Your task to perform on an android device: open app "Nova Launcher" (install if not already installed) Image 0: 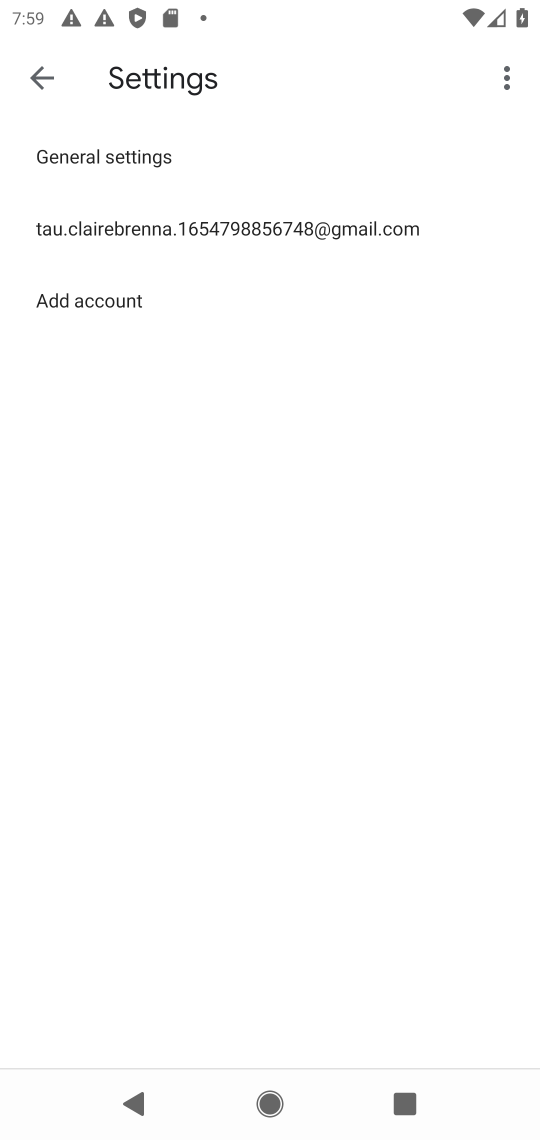
Step 0: press home button
Your task to perform on an android device: open app "Nova Launcher" (install if not already installed) Image 1: 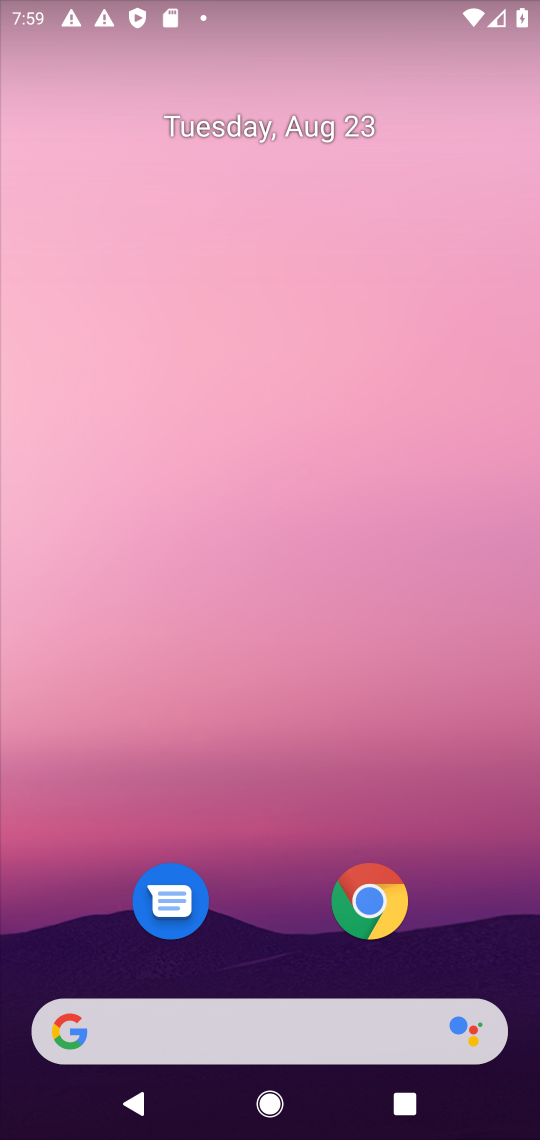
Step 1: drag from (253, 873) to (93, 164)
Your task to perform on an android device: open app "Nova Launcher" (install if not already installed) Image 2: 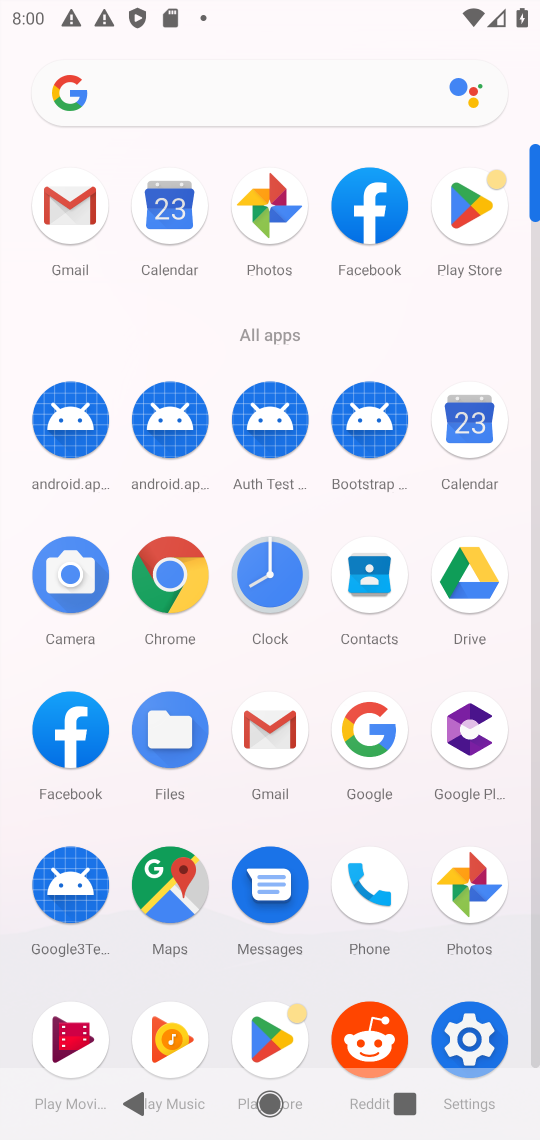
Step 2: click (491, 213)
Your task to perform on an android device: open app "Nova Launcher" (install if not already installed) Image 3: 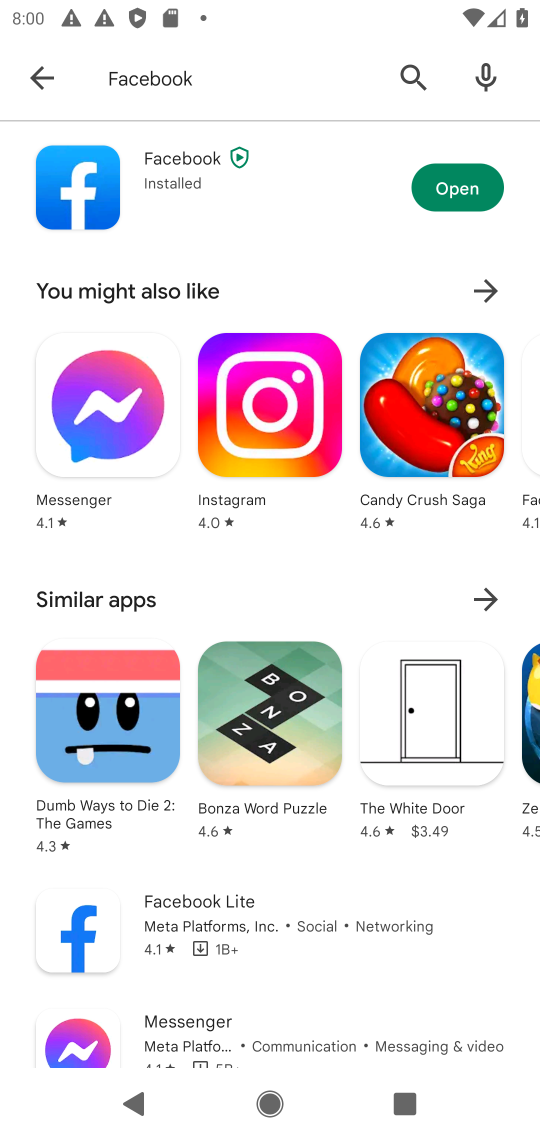
Step 3: press back button
Your task to perform on an android device: open app "Nova Launcher" (install if not already installed) Image 4: 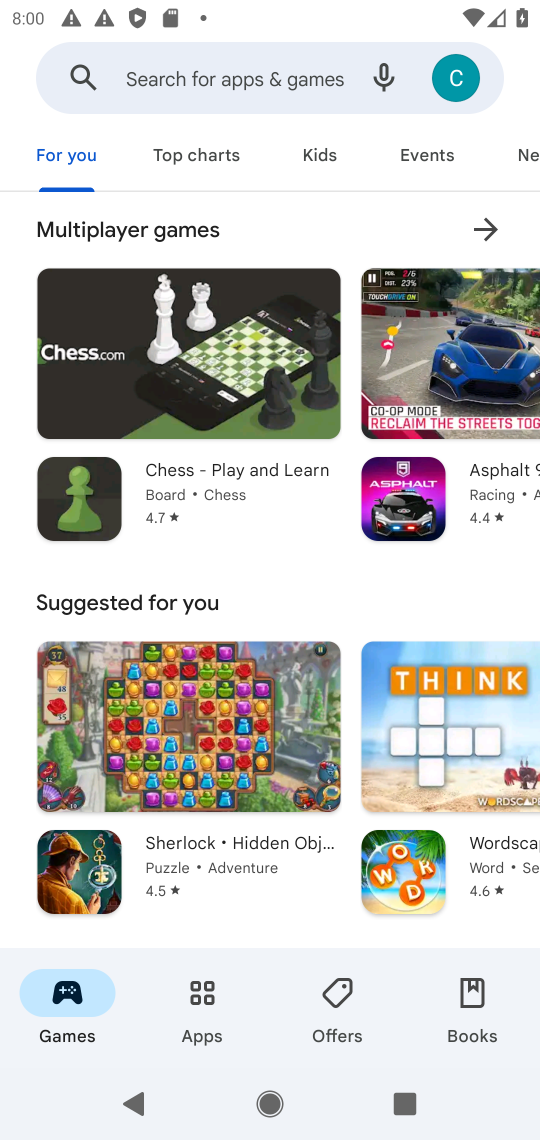
Step 4: click (231, 74)
Your task to perform on an android device: open app "Nova Launcher" (install if not already installed) Image 5: 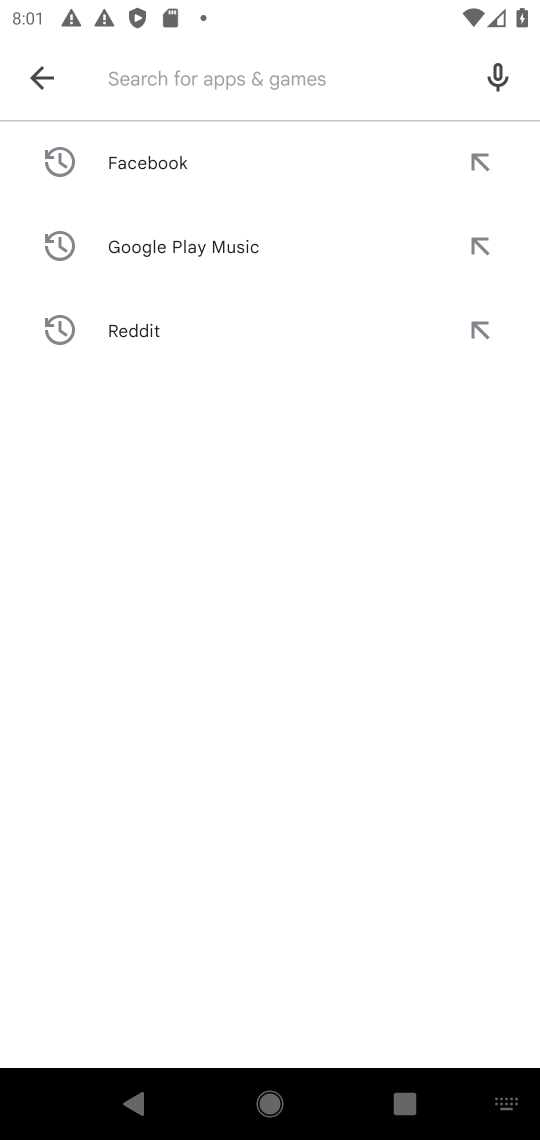
Step 5: type "Nova Launcher"
Your task to perform on an android device: open app "Nova Launcher" (install if not already installed) Image 6: 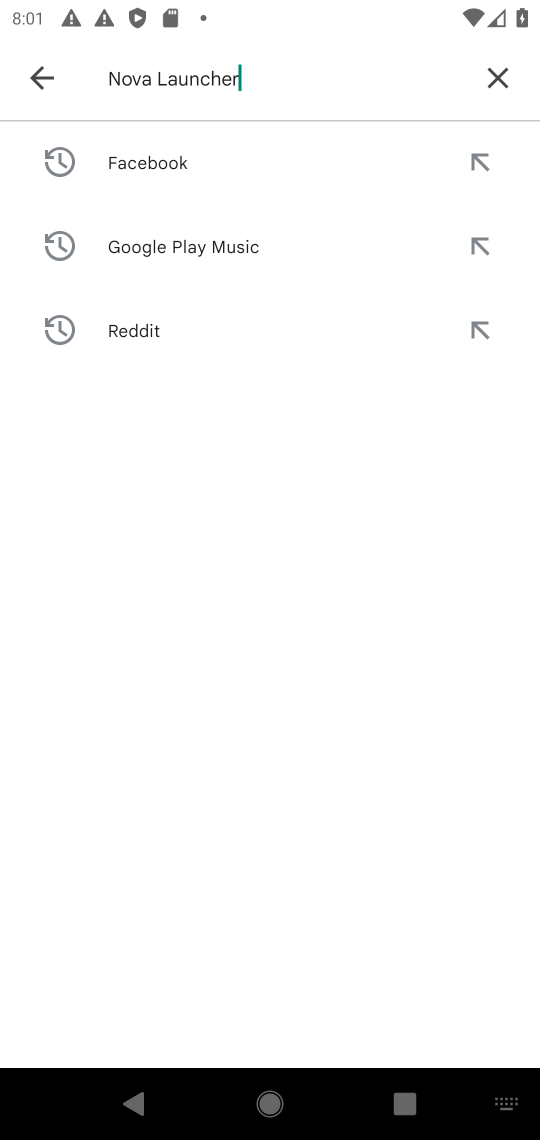
Step 6: press enter
Your task to perform on an android device: open app "Nova Launcher" (install if not already installed) Image 7: 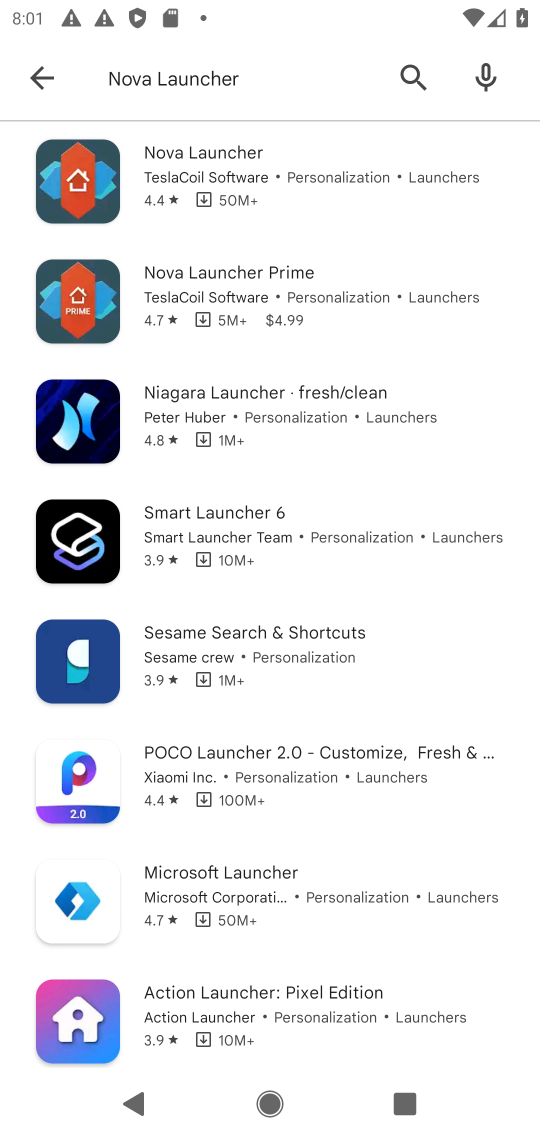
Step 7: click (196, 183)
Your task to perform on an android device: open app "Nova Launcher" (install if not already installed) Image 8: 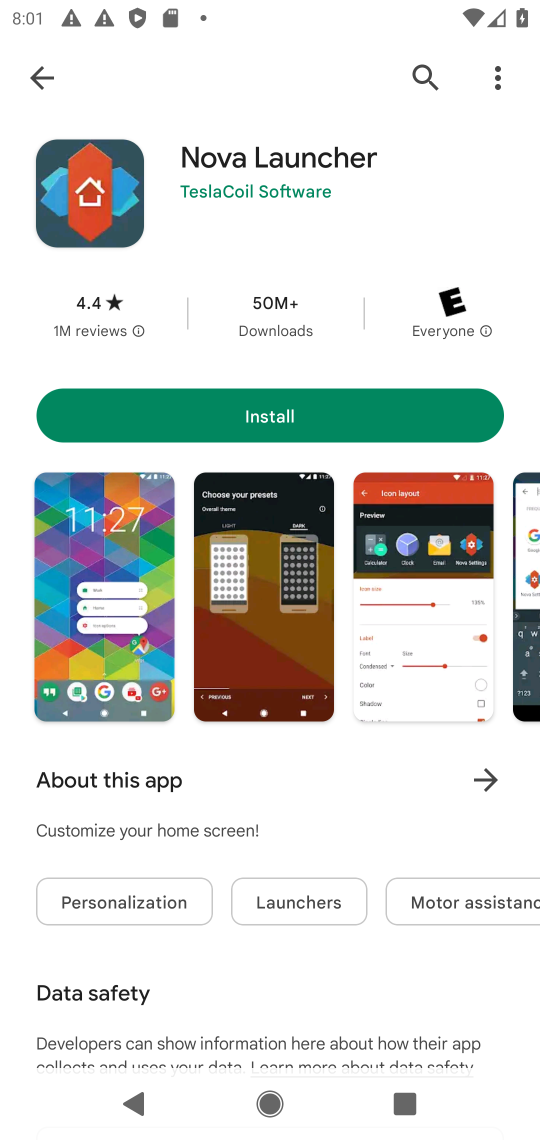
Step 8: click (287, 418)
Your task to perform on an android device: open app "Nova Launcher" (install if not already installed) Image 9: 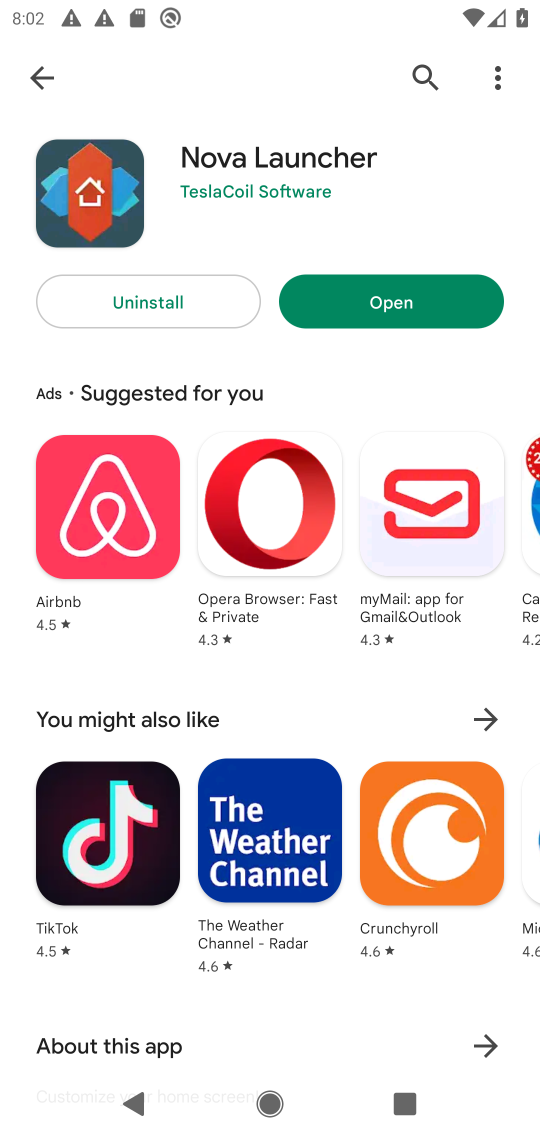
Step 9: click (458, 306)
Your task to perform on an android device: open app "Nova Launcher" (install if not already installed) Image 10: 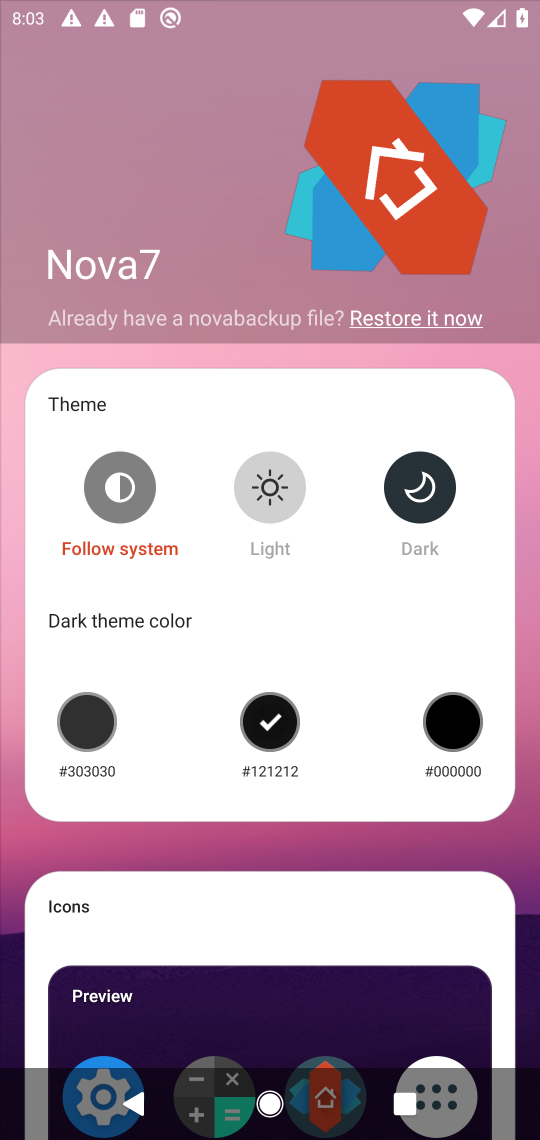
Step 10: task complete